Your task to perform on an android device: toggle data saver in the chrome app Image 0: 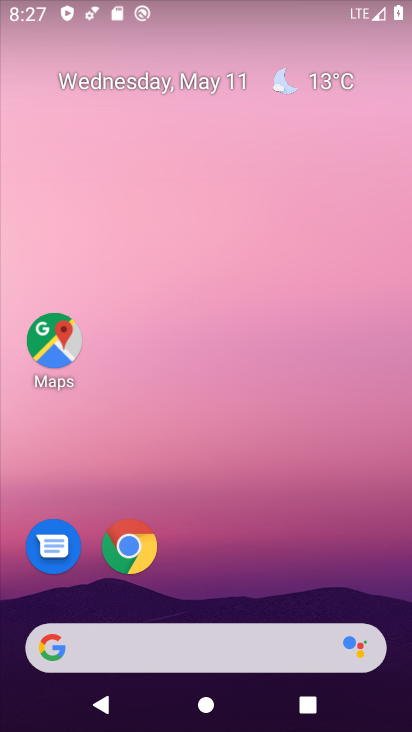
Step 0: click (135, 552)
Your task to perform on an android device: toggle data saver in the chrome app Image 1: 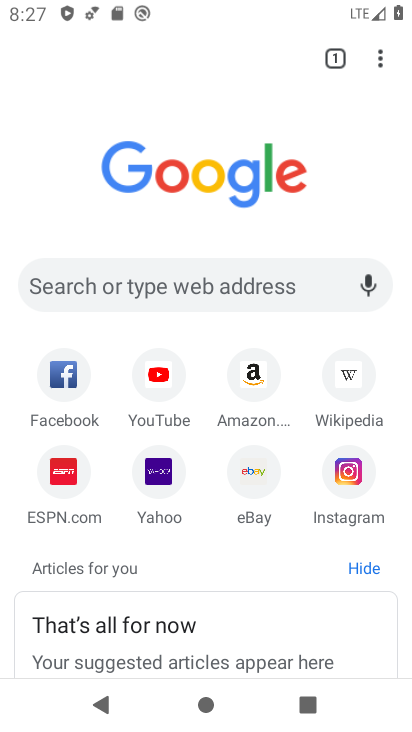
Step 1: click (380, 62)
Your task to perform on an android device: toggle data saver in the chrome app Image 2: 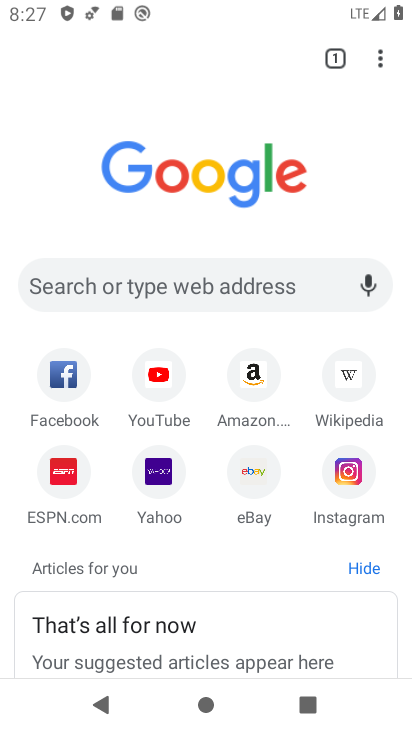
Step 2: drag from (383, 59) to (210, 501)
Your task to perform on an android device: toggle data saver in the chrome app Image 3: 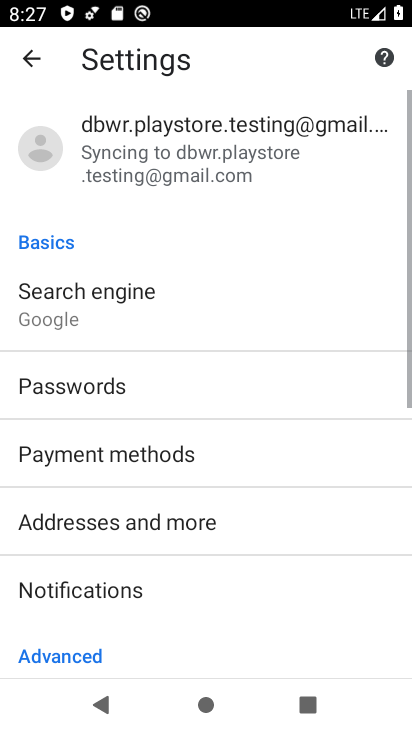
Step 3: drag from (189, 559) to (272, 148)
Your task to perform on an android device: toggle data saver in the chrome app Image 4: 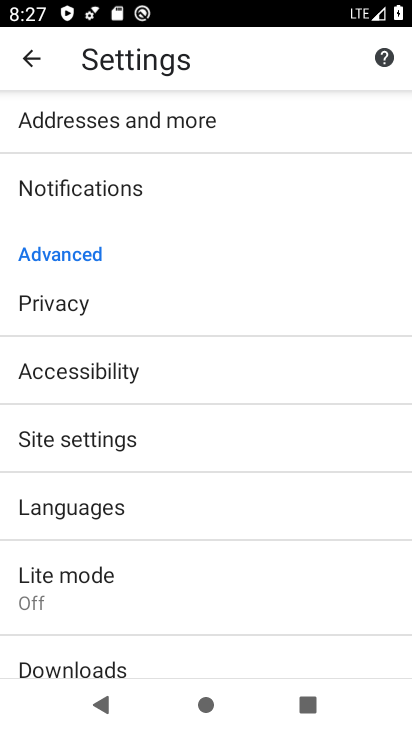
Step 4: click (115, 572)
Your task to perform on an android device: toggle data saver in the chrome app Image 5: 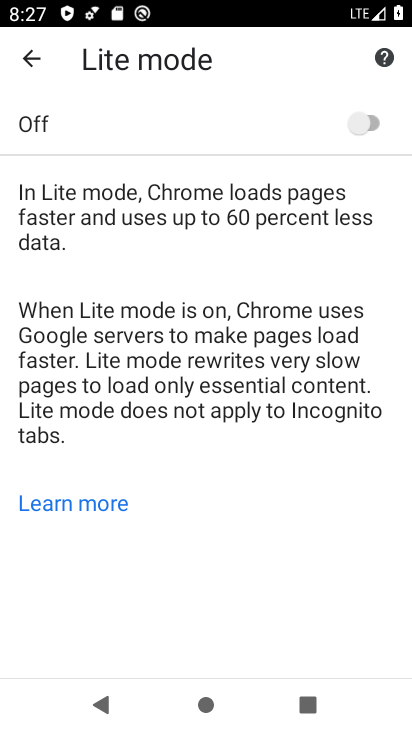
Step 5: click (381, 122)
Your task to perform on an android device: toggle data saver in the chrome app Image 6: 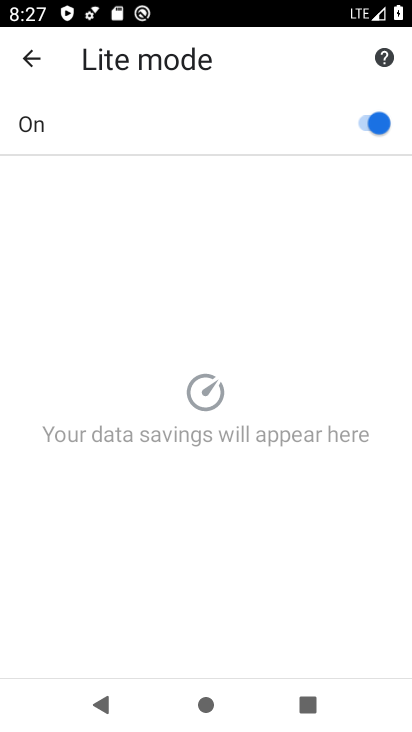
Step 6: task complete